Your task to perform on an android device: refresh tabs in the chrome app Image 0: 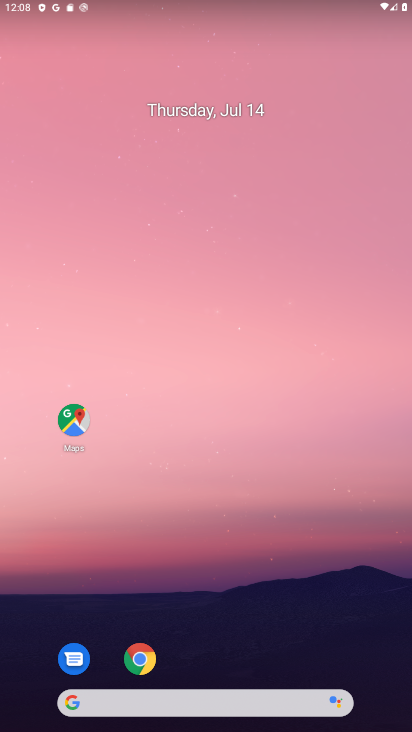
Step 0: click (146, 674)
Your task to perform on an android device: refresh tabs in the chrome app Image 1: 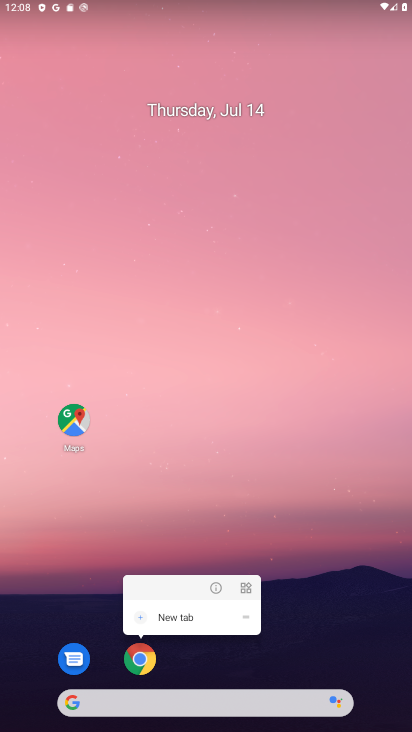
Step 1: click (146, 666)
Your task to perform on an android device: refresh tabs in the chrome app Image 2: 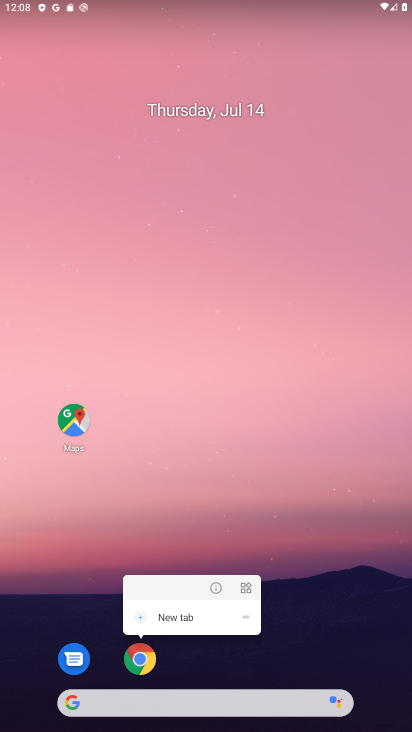
Step 2: click (141, 654)
Your task to perform on an android device: refresh tabs in the chrome app Image 3: 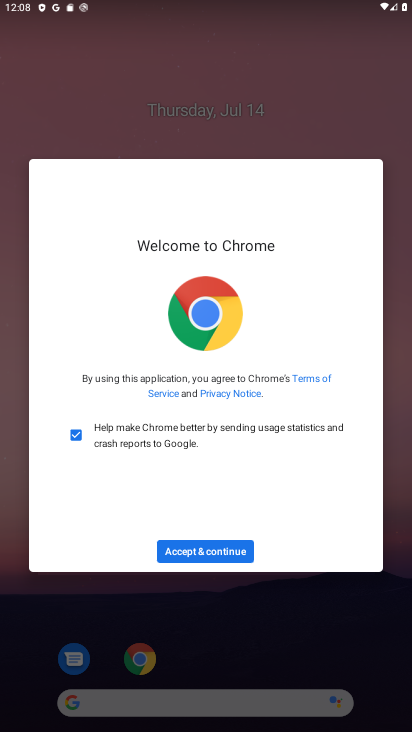
Step 3: click (223, 552)
Your task to perform on an android device: refresh tabs in the chrome app Image 4: 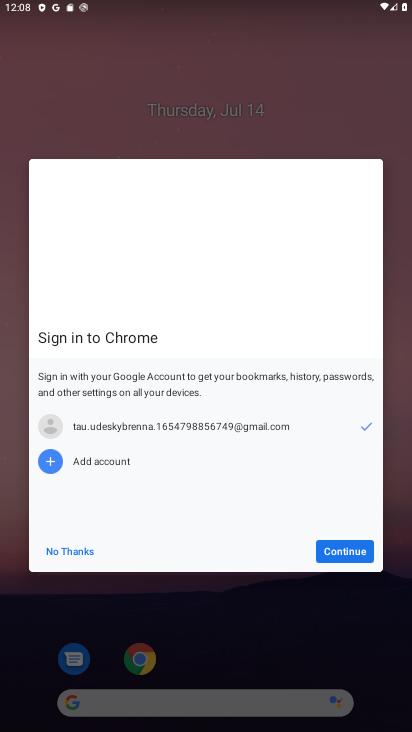
Step 4: click (337, 546)
Your task to perform on an android device: refresh tabs in the chrome app Image 5: 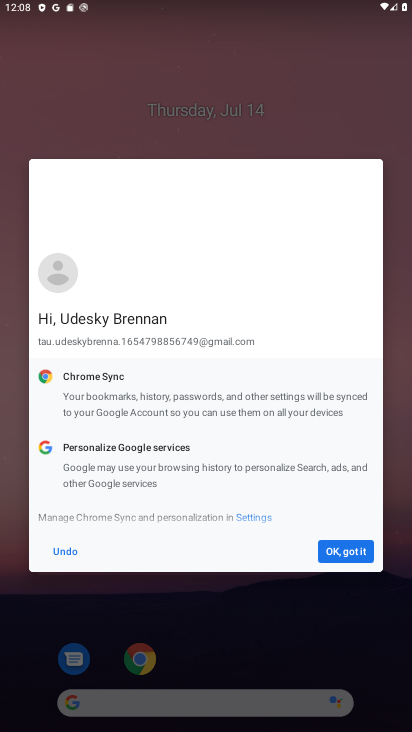
Step 5: click (336, 559)
Your task to perform on an android device: refresh tabs in the chrome app Image 6: 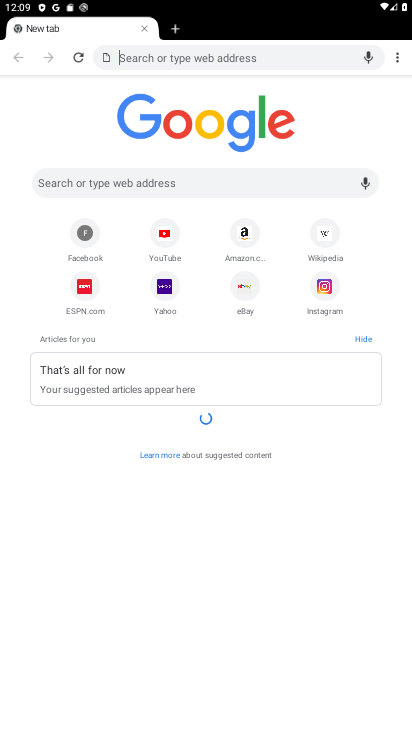
Step 6: click (395, 62)
Your task to perform on an android device: refresh tabs in the chrome app Image 7: 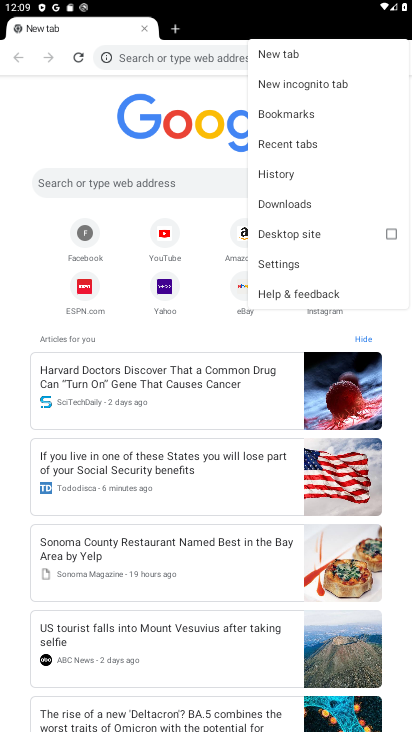
Step 7: click (79, 60)
Your task to perform on an android device: refresh tabs in the chrome app Image 8: 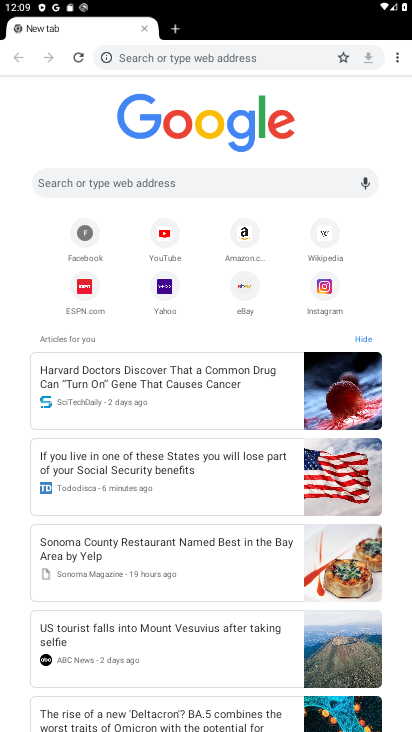
Step 8: task complete